Your task to perform on an android device: turn off smart reply in the gmail app Image 0: 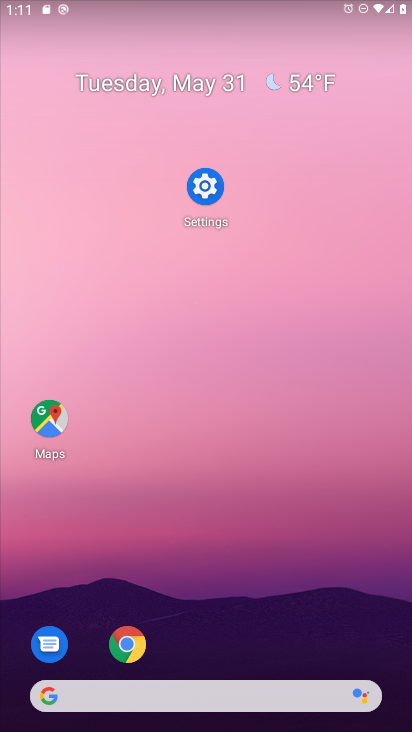
Step 0: press home button
Your task to perform on an android device: turn off smart reply in the gmail app Image 1: 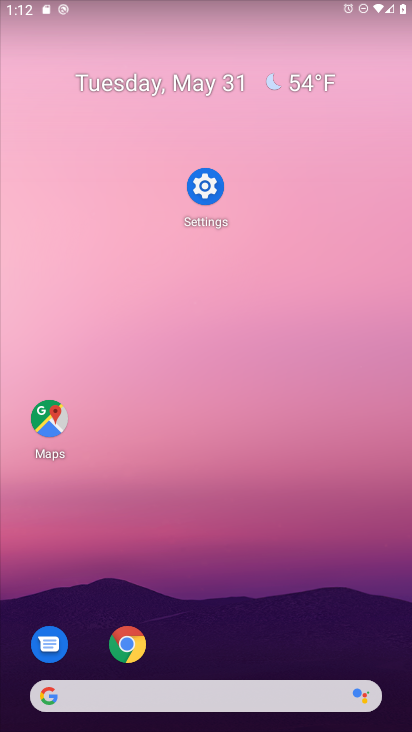
Step 1: drag from (225, 642) to (217, 152)
Your task to perform on an android device: turn off smart reply in the gmail app Image 2: 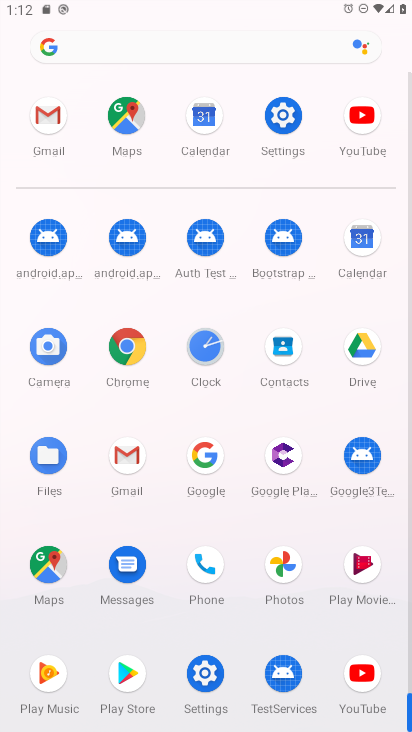
Step 2: click (50, 131)
Your task to perform on an android device: turn off smart reply in the gmail app Image 3: 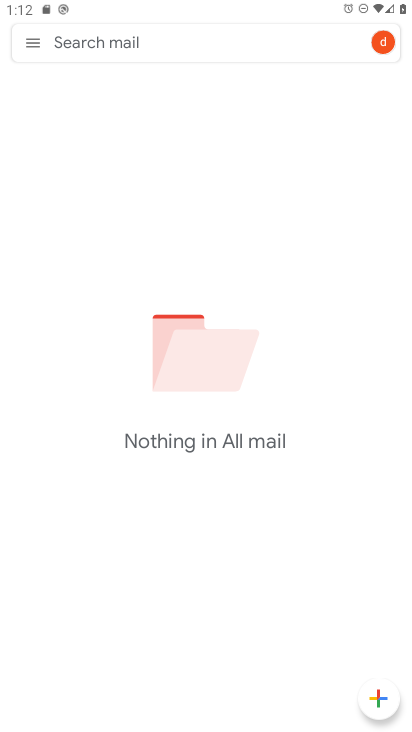
Step 3: click (40, 51)
Your task to perform on an android device: turn off smart reply in the gmail app Image 4: 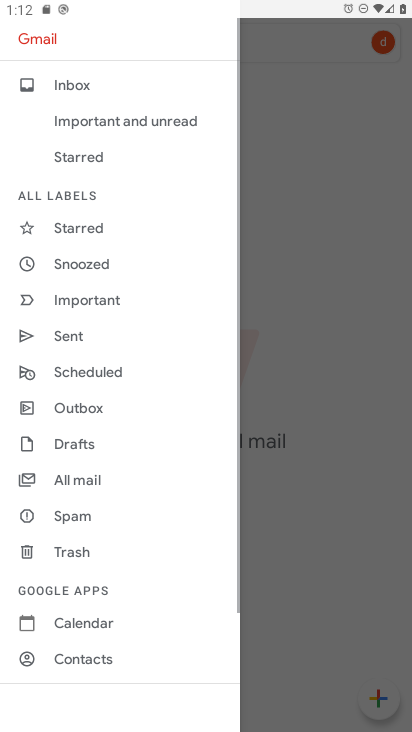
Step 4: drag from (183, 593) to (146, 184)
Your task to perform on an android device: turn off smart reply in the gmail app Image 5: 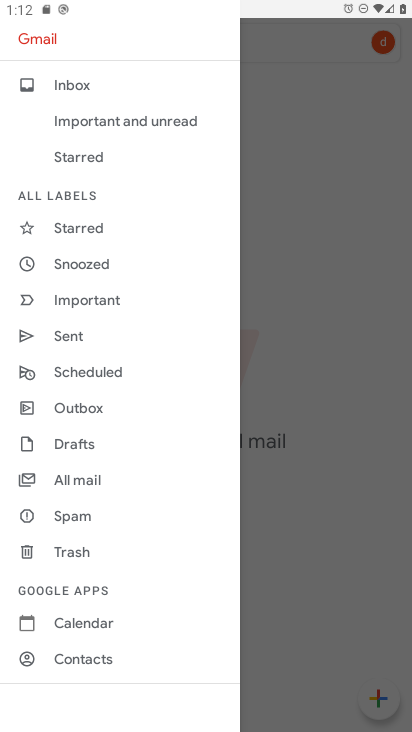
Step 5: drag from (187, 522) to (165, 162)
Your task to perform on an android device: turn off smart reply in the gmail app Image 6: 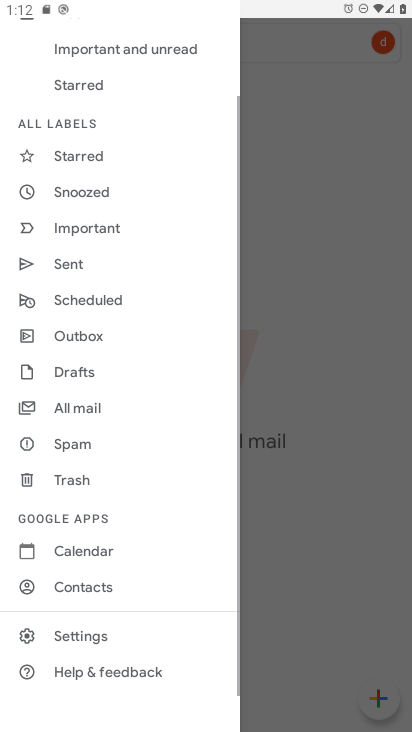
Step 6: drag from (192, 562) to (200, 159)
Your task to perform on an android device: turn off smart reply in the gmail app Image 7: 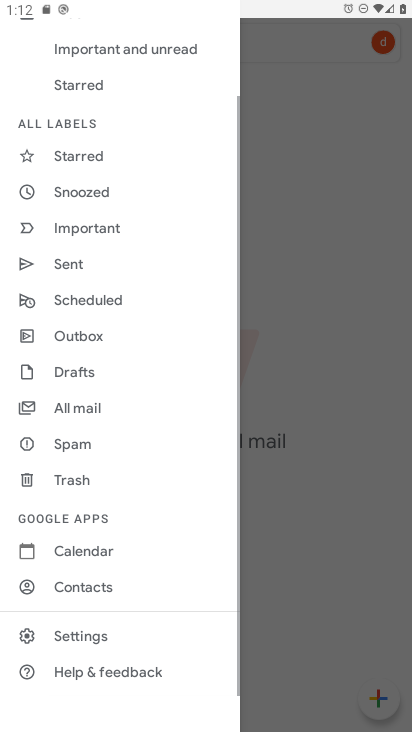
Step 7: click (70, 635)
Your task to perform on an android device: turn off smart reply in the gmail app Image 8: 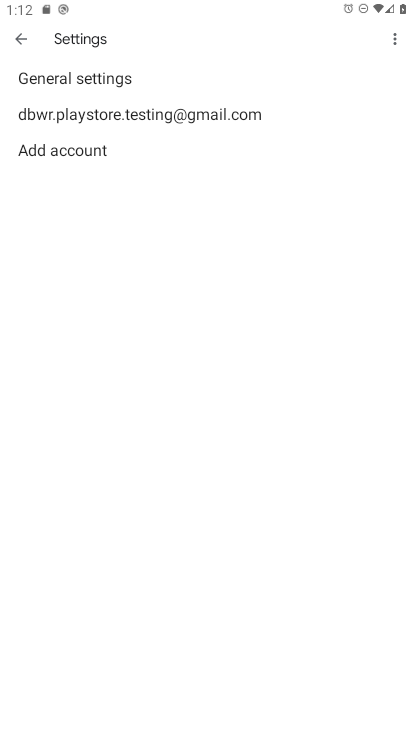
Step 8: drag from (108, 120) to (160, 120)
Your task to perform on an android device: turn off smart reply in the gmail app Image 9: 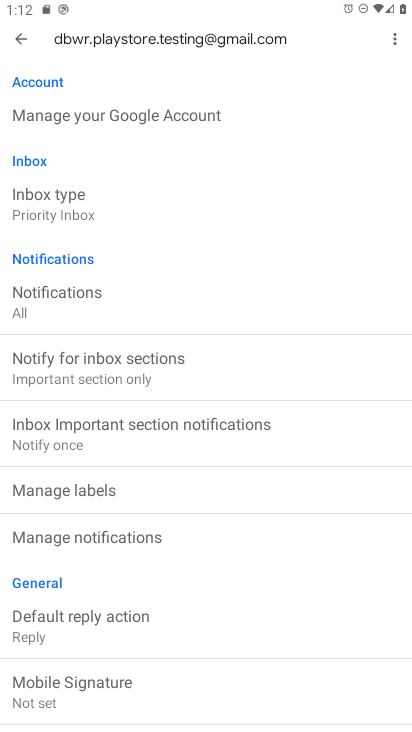
Step 9: drag from (232, 577) to (200, 75)
Your task to perform on an android device: turn off smart reply in the gmail app Image 10: 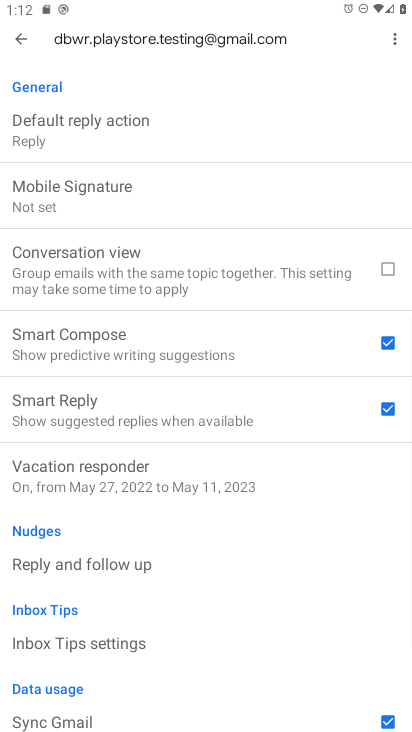
Step 10: drag from (252, 625) to (187, 205)
Your task to perform on an android device: turn off smart reply in the gmail app Image 11: 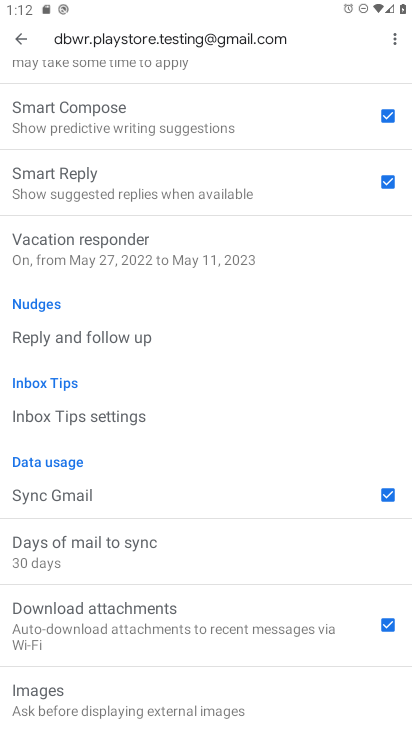
Step 11: click (393, 182)
Your task to perform on an android device: turn off smart reply in the gmail app Image 12: 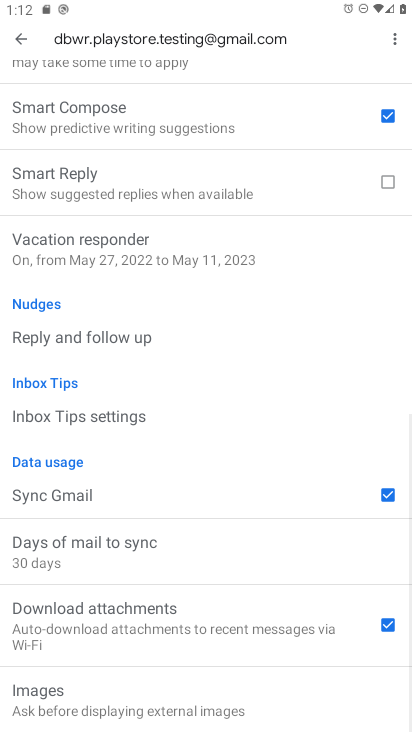
Step 12: task complete